Your task to perform on an android device: add a label to a message in the gmail app Image 0: 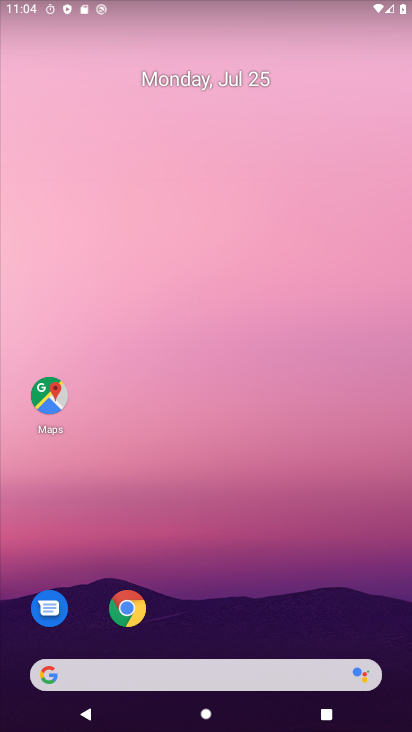
Step 0: drag from (257, 656) to (245, 0)
Your task to perform on an android device: add a label to a message in the gmail app Image 1: 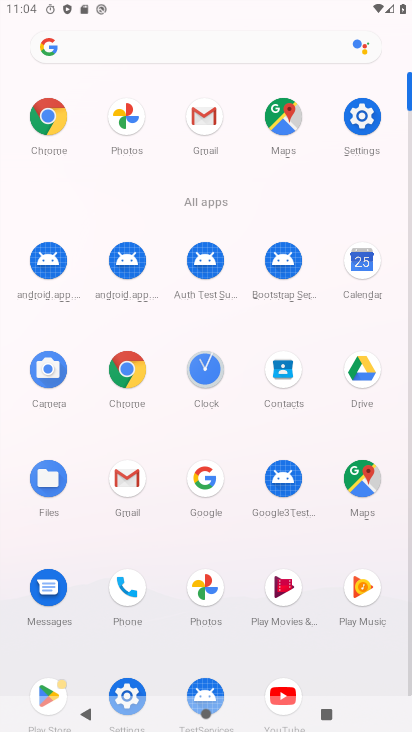
Step 1: click (202, 113)
Your task to perform on an android device: add a label to a message in the gmail app Image 2: 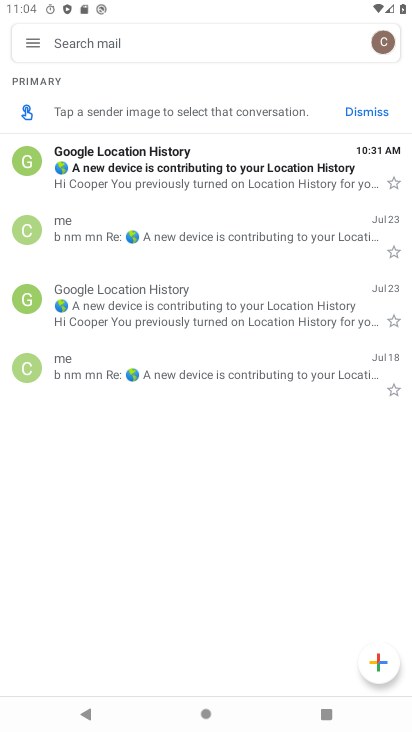
Step 2: click (172, 166)
Your task to perform on an android device: add a label to a message in the gmail app Image 3: 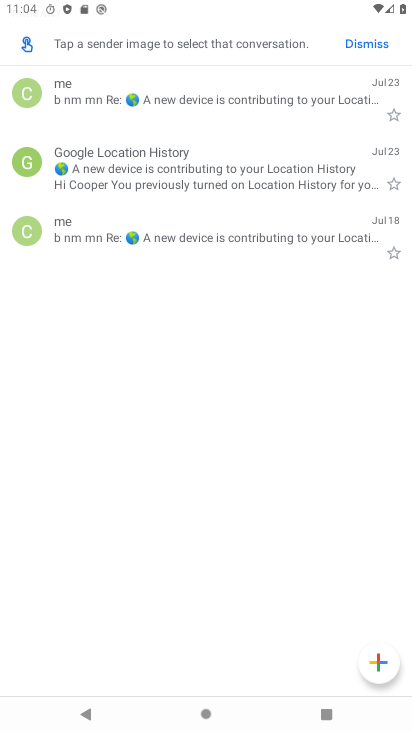
Step 3: click (221, 95)
Your task to perform on an android device: add a label to a message in the gmail app Image 4: 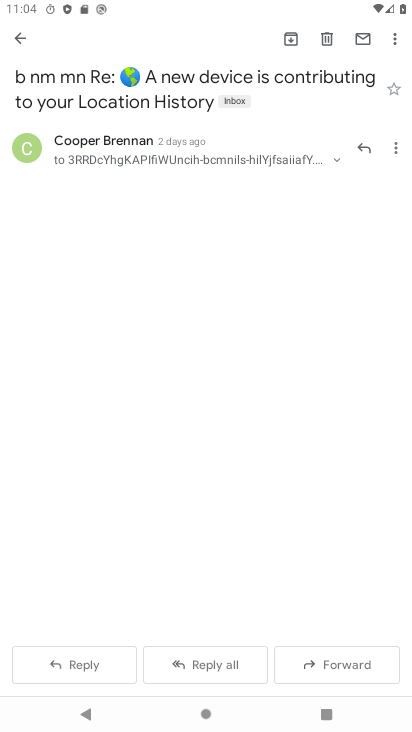
Step 4: click (390, 38)
Your task to perform on an android device: add a label to a message in the gmail app Image 5: 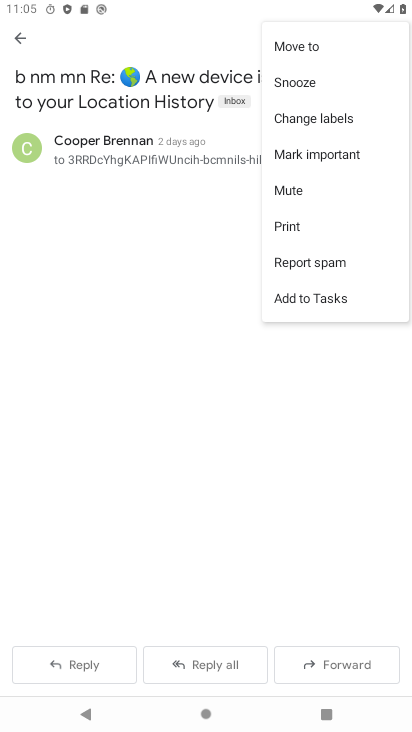
Step 5: click (105, 328)
Your task to perform on an android device: add a label to a message in the gmail app Image 6: 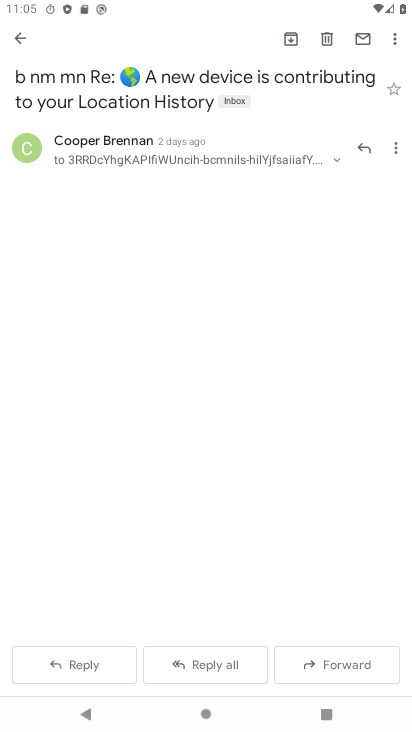
Step 6: task complete